Your task to perform on an android device: Open the map Image 0: 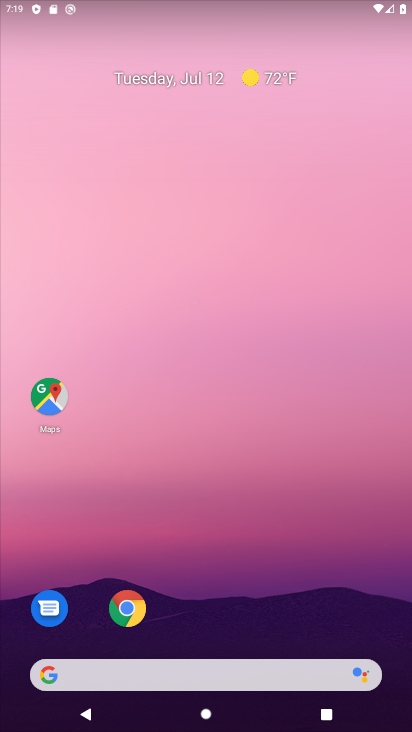
Step 0: click (49, 399)
Your task to perform on an android device: Open the map Image 1: 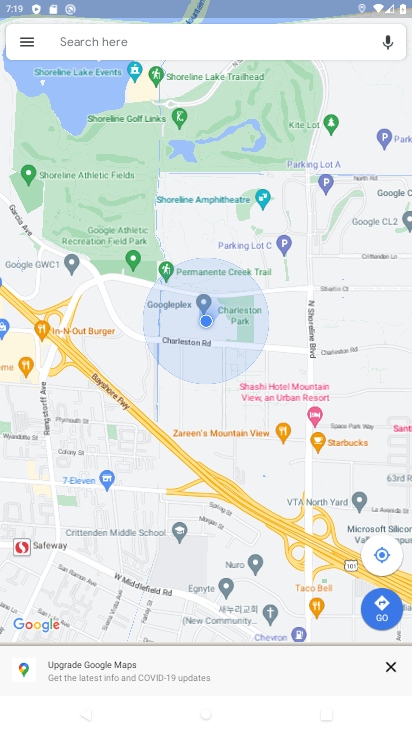
Step 1: task complete